Your task to perform on an android device: change the clock display to show seconds Image 0: 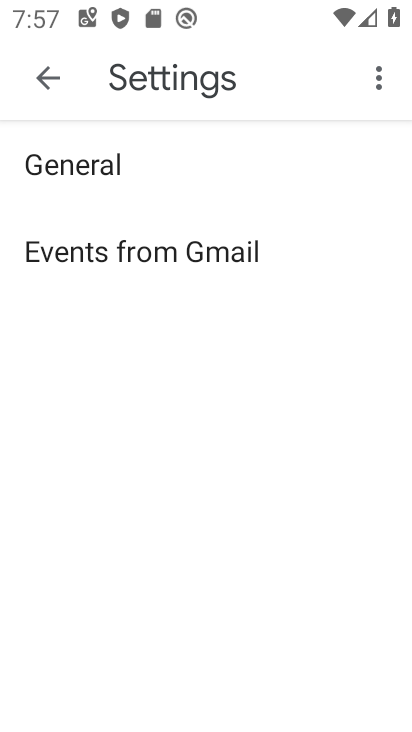
Step 0: press home button
Your task to perform on an android device: change the clock display to show seconds Image 1: 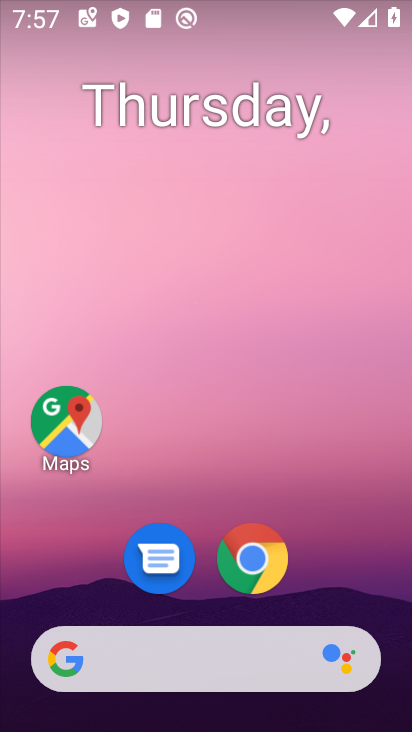
Step 1: drag from (136, 628) to (259, 19)
Your task to perform on an android device: change the clock display to show seconds Image 2: 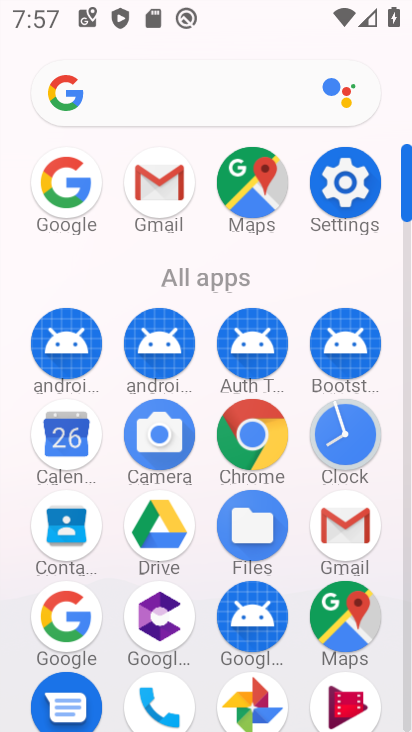
Step 2: click (334, 430)
Your task to perform on an android device: change the clock display to show seconds Image 3: 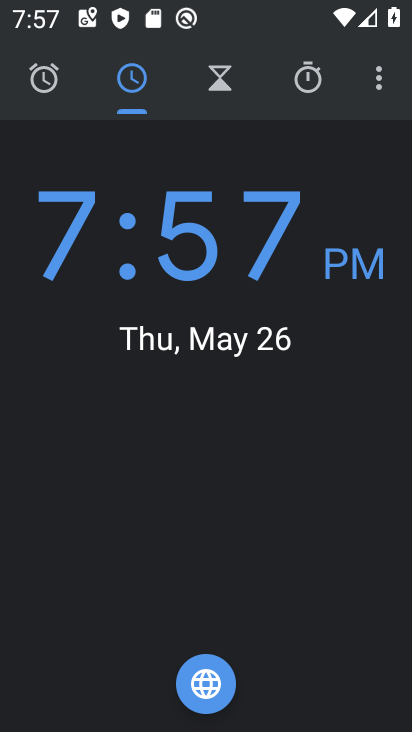
Step 3: click (382, 73)
Your task to perform on an android device: change the clock display to show seconds Image 4: 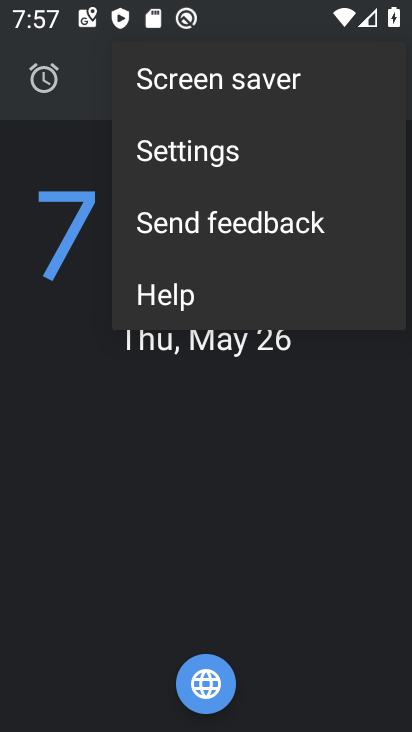
Step 4: click (197, 159)
Your task to perform on an android device: change the clock display to show seconds Image 5: 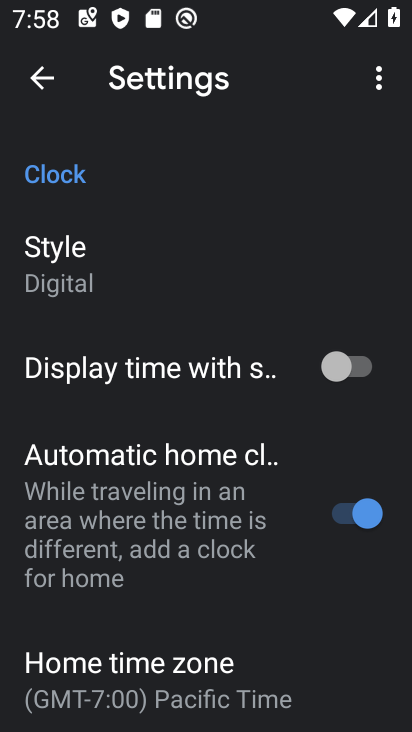
Step 5: click (358, 363)
Your task to perform on an android device: change the clock display to show seconds Image 6: 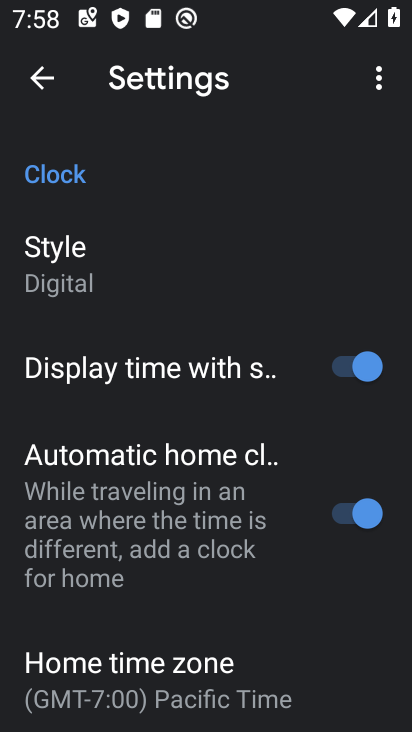
Step 6: task complete